Your task to perform on an android device: Open calendar and show me the third week of next month Image 0: 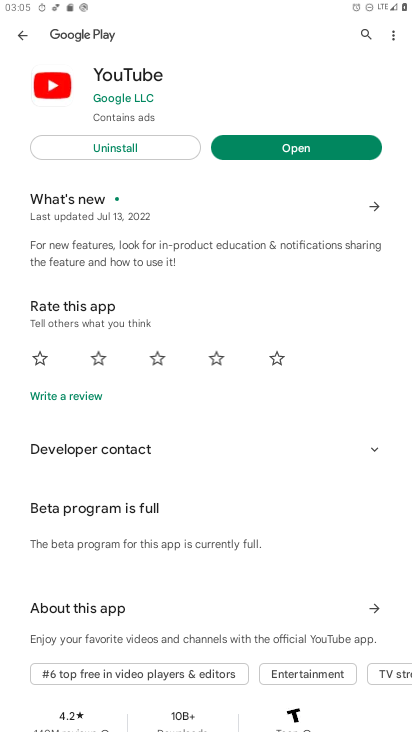
Step 0: press home button
Your task to perform on an android device: Open calendar and show me the third week of next month Image 1: 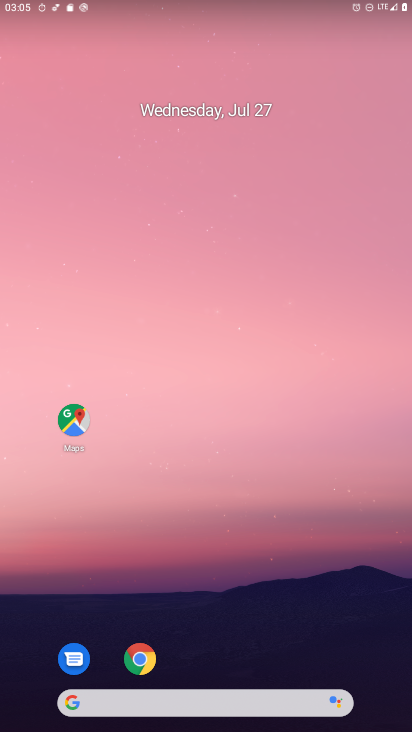
Step 1: drag from (352, 584) to (300, 102)
Your task to perform on an android device: Open calendar and show me the third week of next month Image 2: 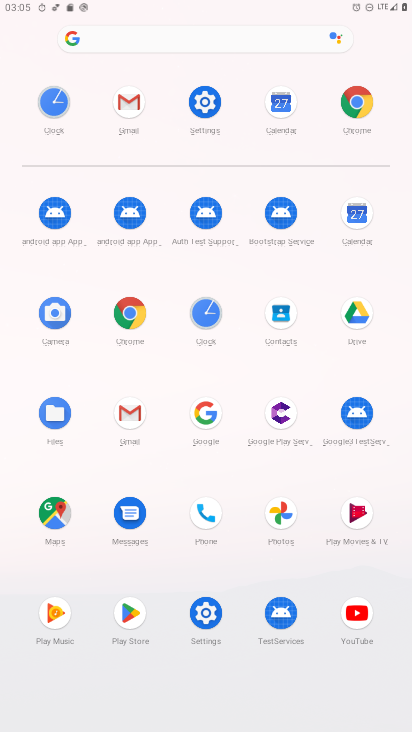
Step 2: click (359, 207)
Your task to perform on an android device: Open calendar and show me the third week of next month Image 3: 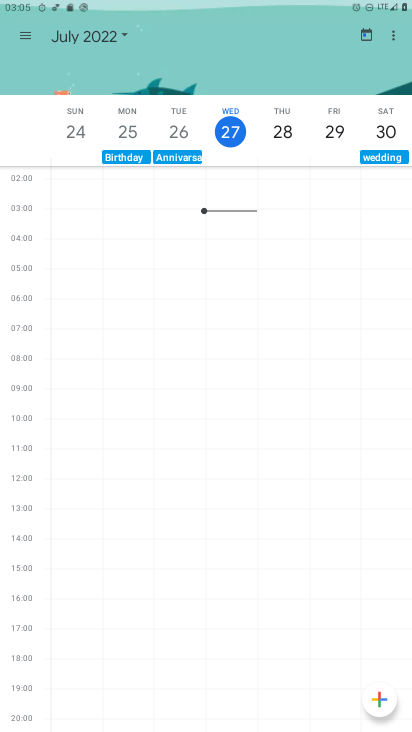
Step 3: click (102, 43)
Your task to perform on an android device: Open calendar and show me the third week of next month Image 4: 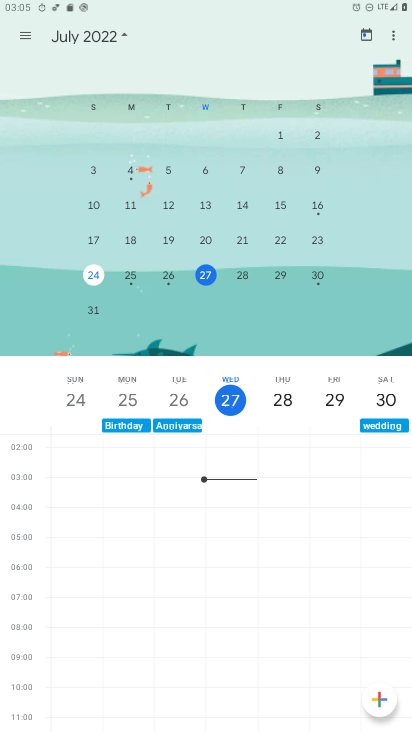
Step 4: drag from (324, 222) to (62, 211)
Your task to perform on an android device: Open calendar and show me the third week of next month Image 5: 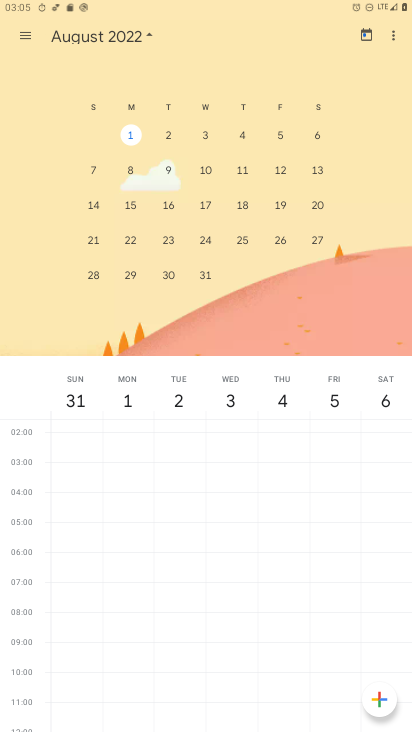
Step 5: click (137, 206)
Your task to perform on an android device: Open calendar and show me the third week of next month Image 6: 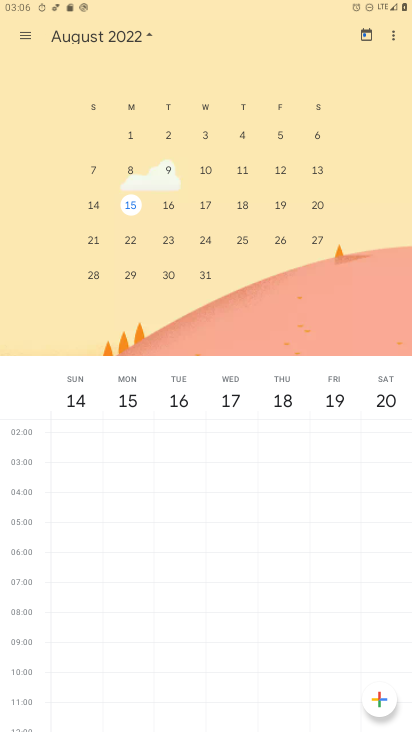
Step 6: task complete